Your task to perform on an android device: install app "Booking.com: Hotels and more" Image 0: 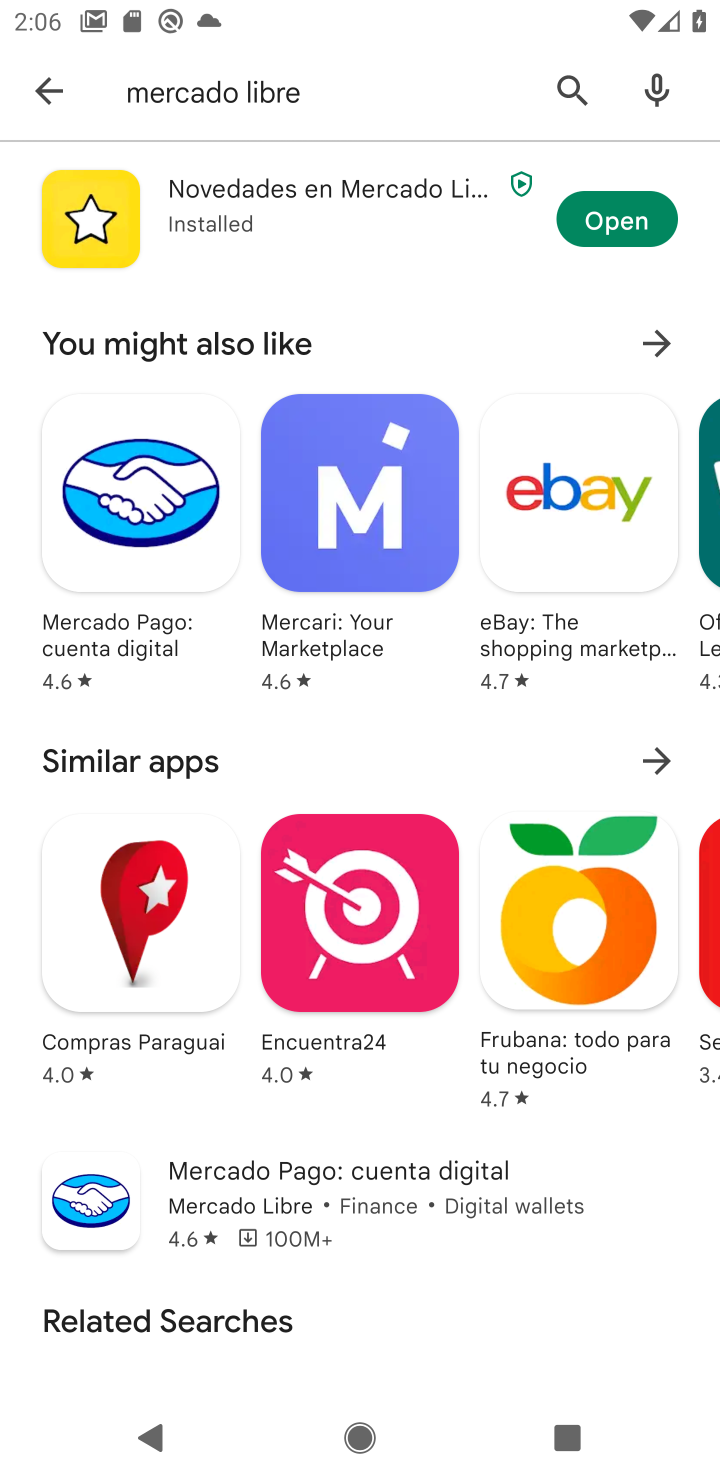
Step 0: click (554, 82)
Your task to perform on an android device: install app "Booking.com: Hotels and more" Image 1: 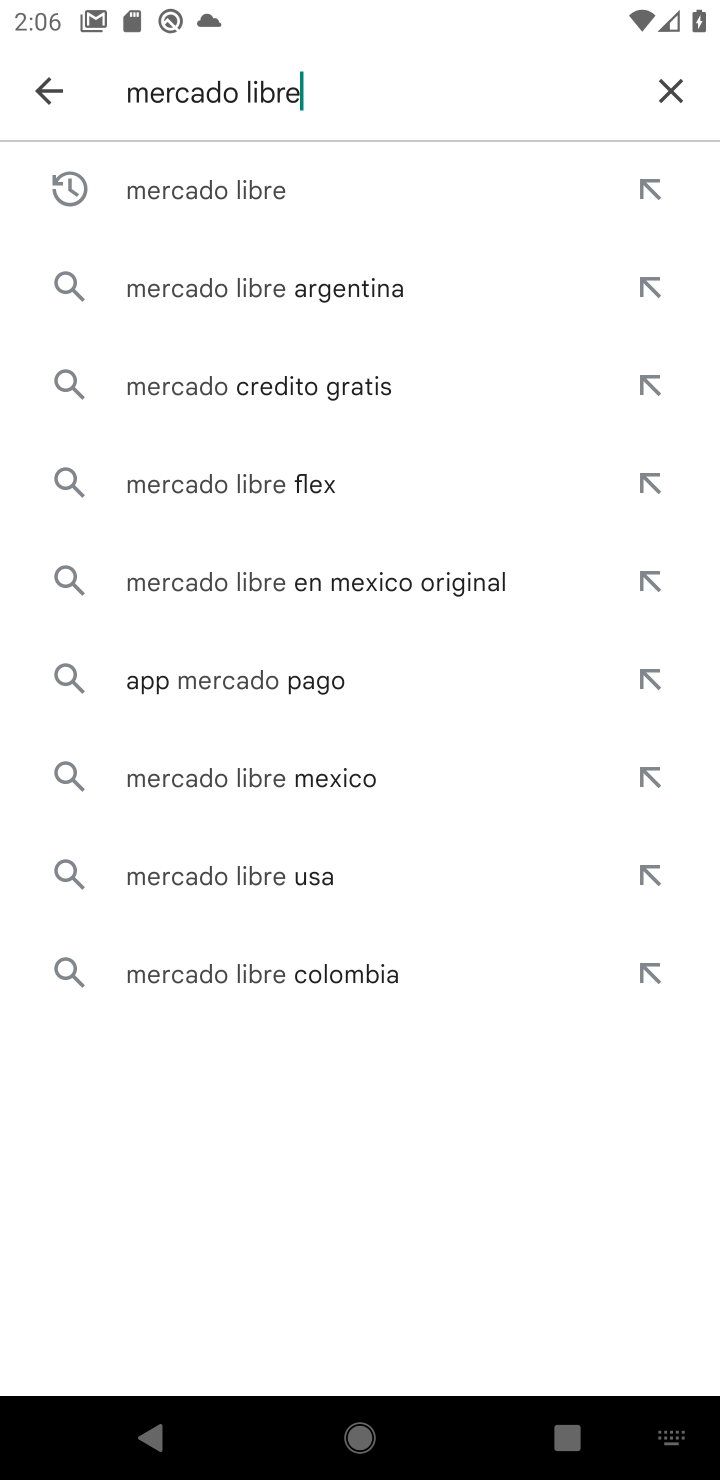
Step 1: click (678, 82)
Your task to perform on an android device: install app "Booking.com: Hotels and more" Image 2: 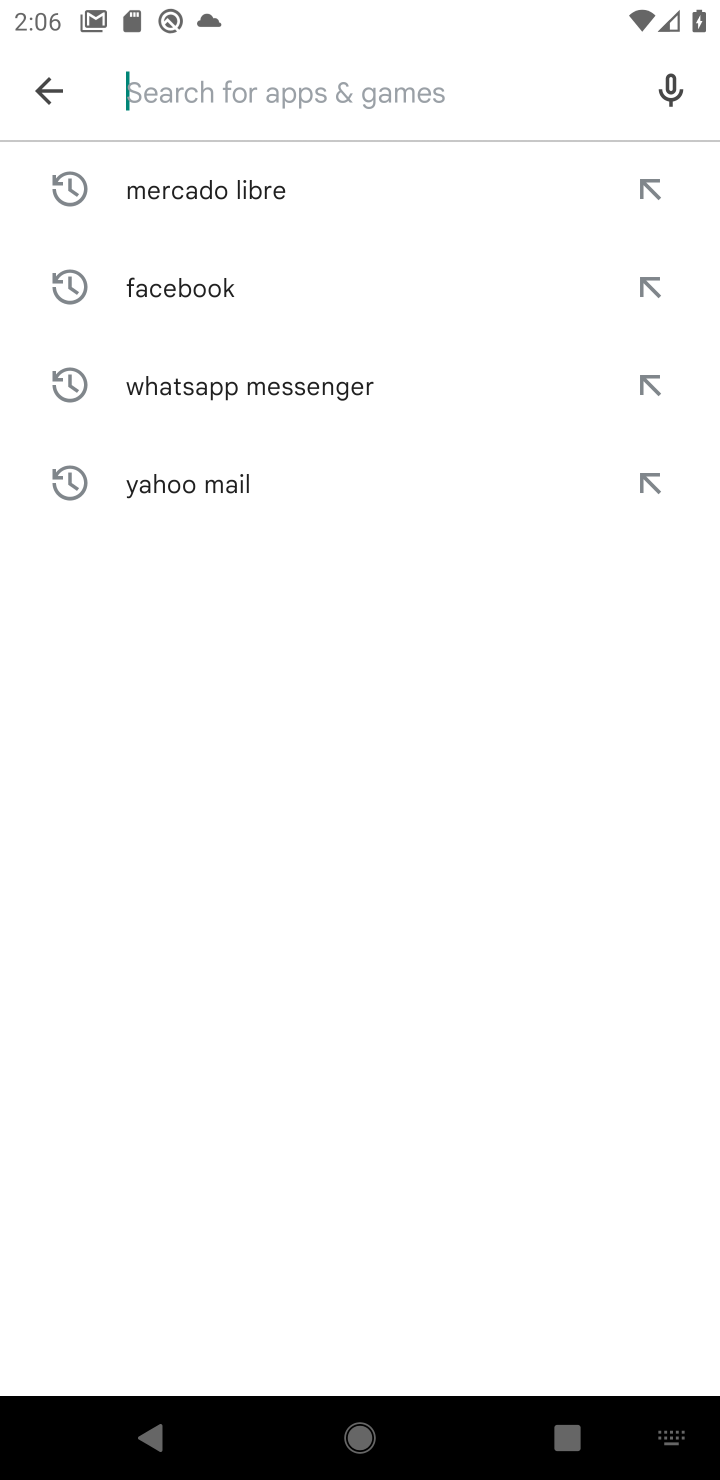
Step 2: type "Booking.com: Hotels and more"
Your task to perform on an android device: install app "Booking.com: Hotels and more" Image 3: 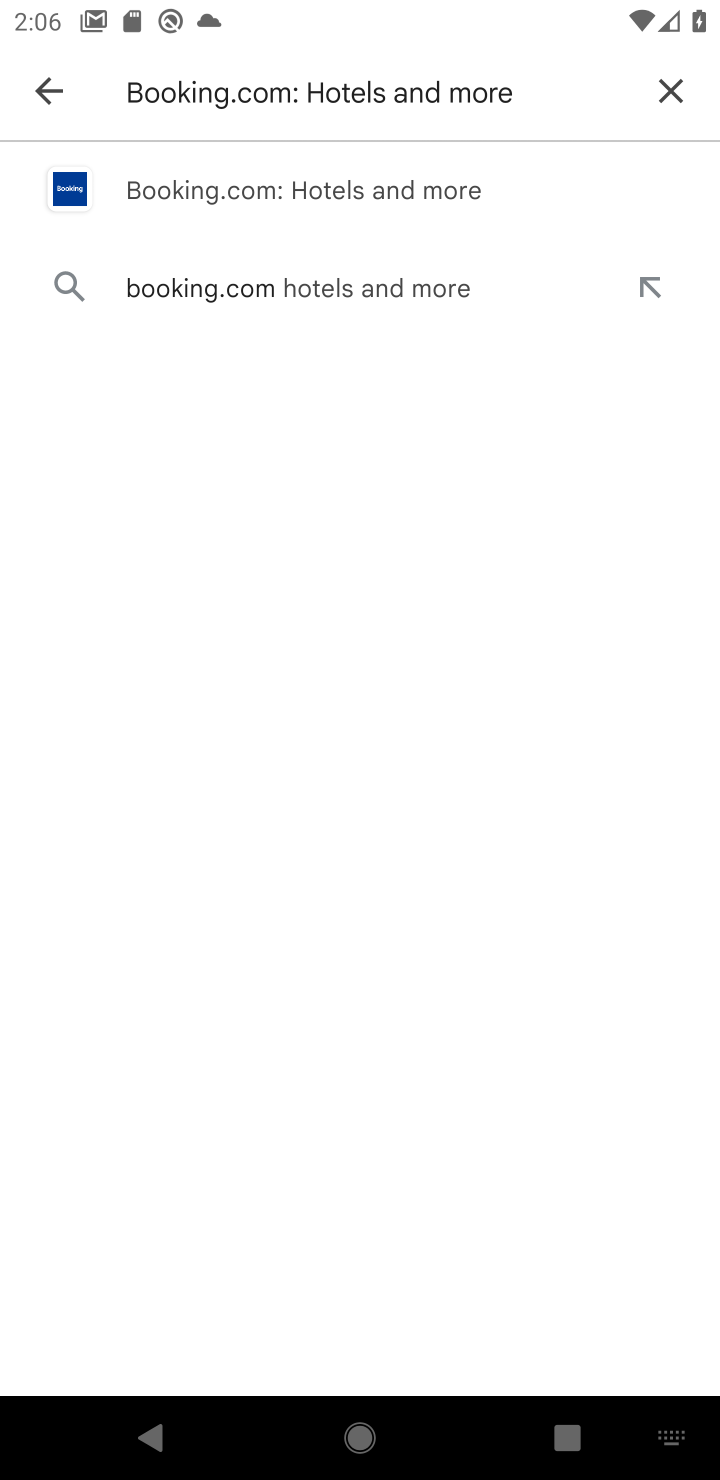
Step 3: click (239, 174)
Your task to perform on an android device: install app "Booking.com: Hotels and more" Image 4: 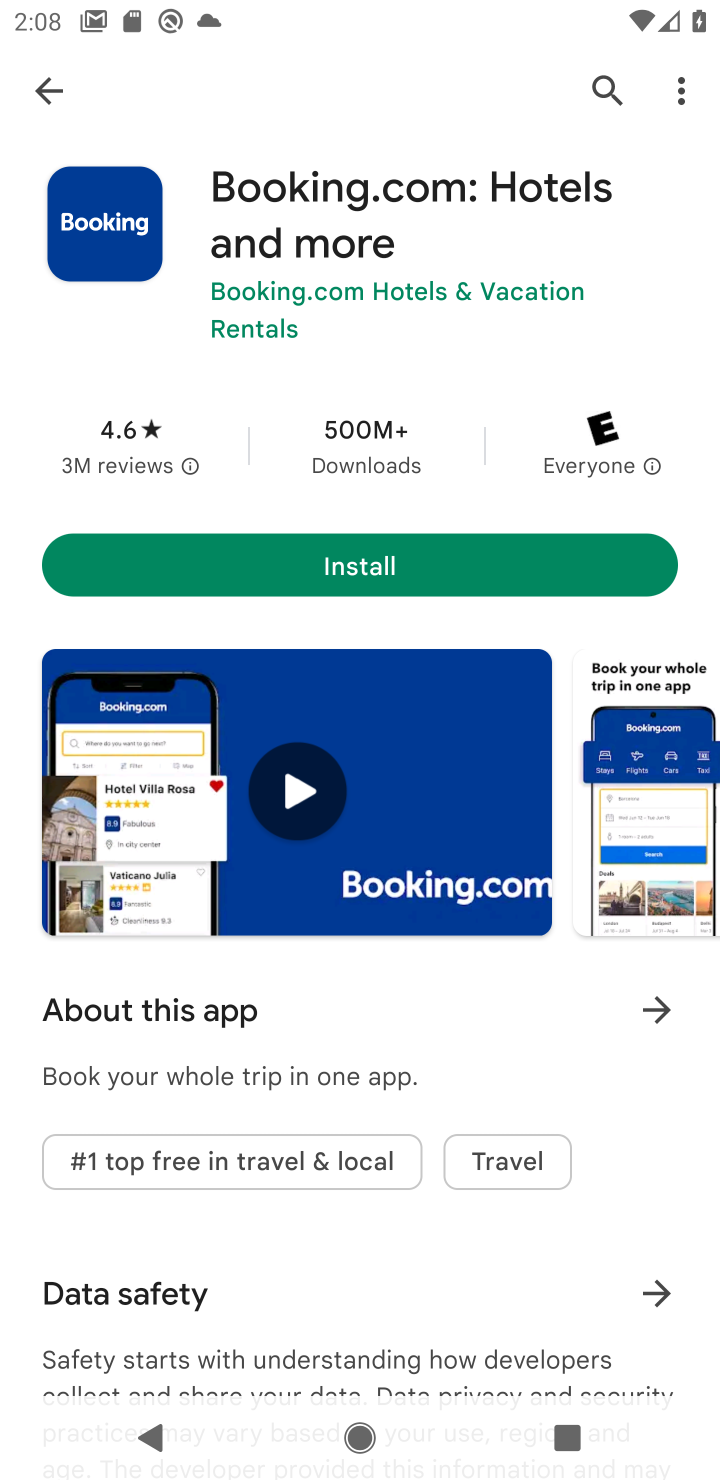
Step 4: click (365, 576)
Your task to perform on an android device: install app "Booking.com: Hotels and more" Image 5: 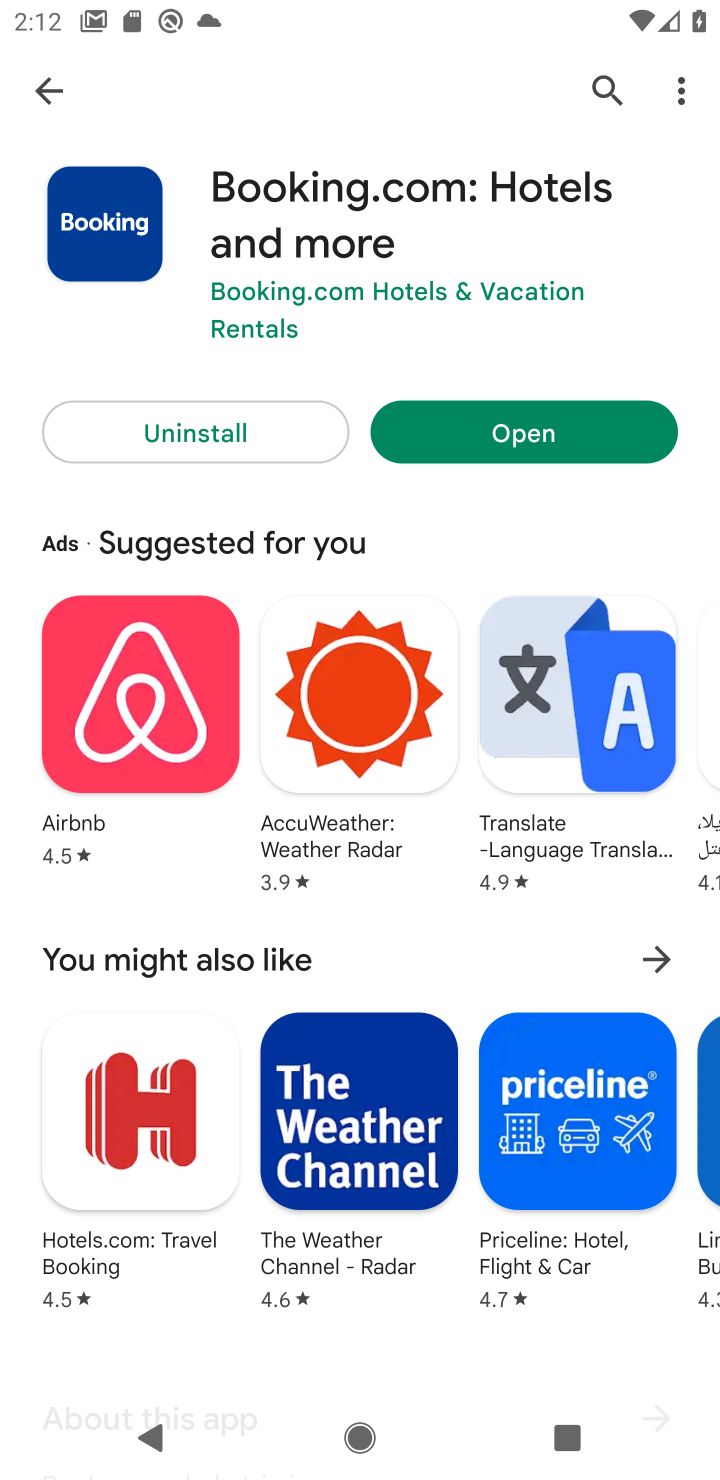
Step 5: click (571, 431)
Your task to perform on an android device: install app "Booking.com: Hotels and more" Image 6: 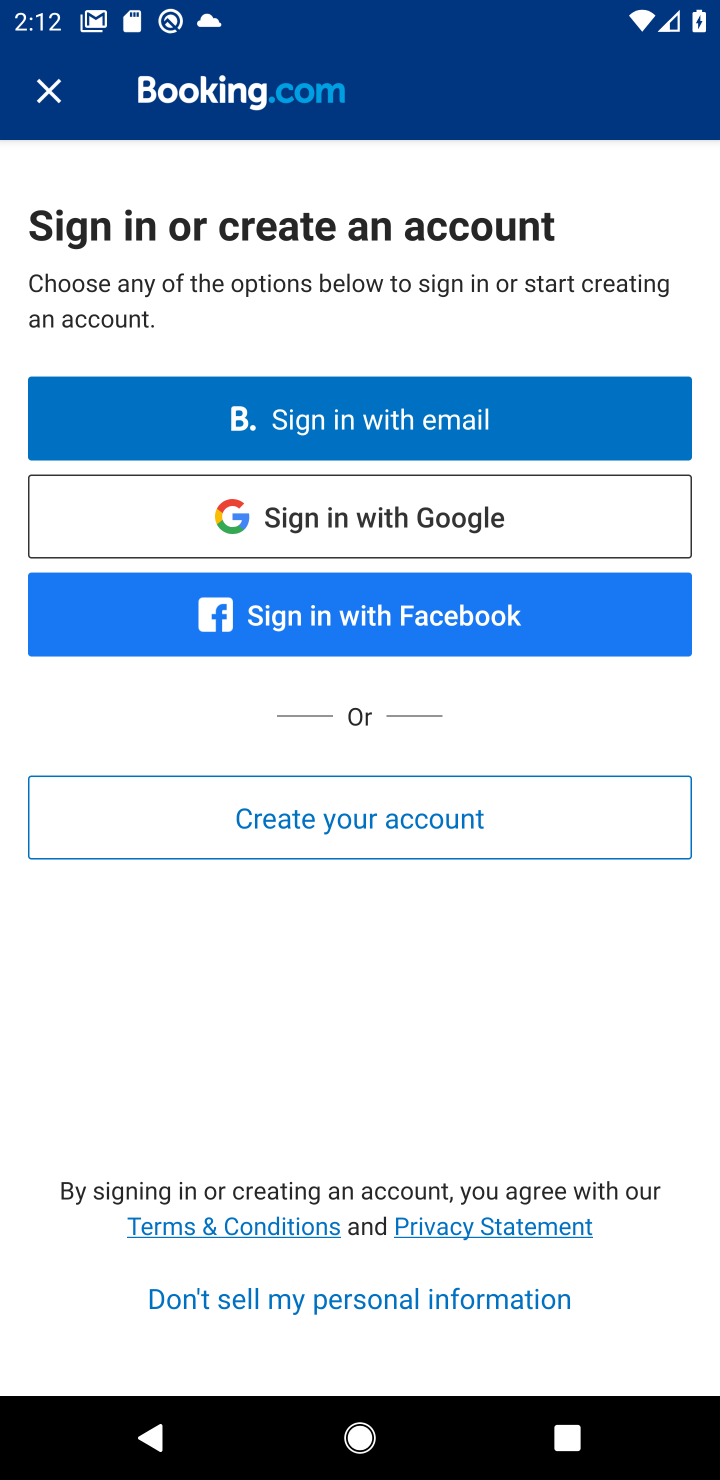
Step 6: click (394, 511)
Your task to perform on an android device: install app "Booking.com: Hotels and more" Image 7: 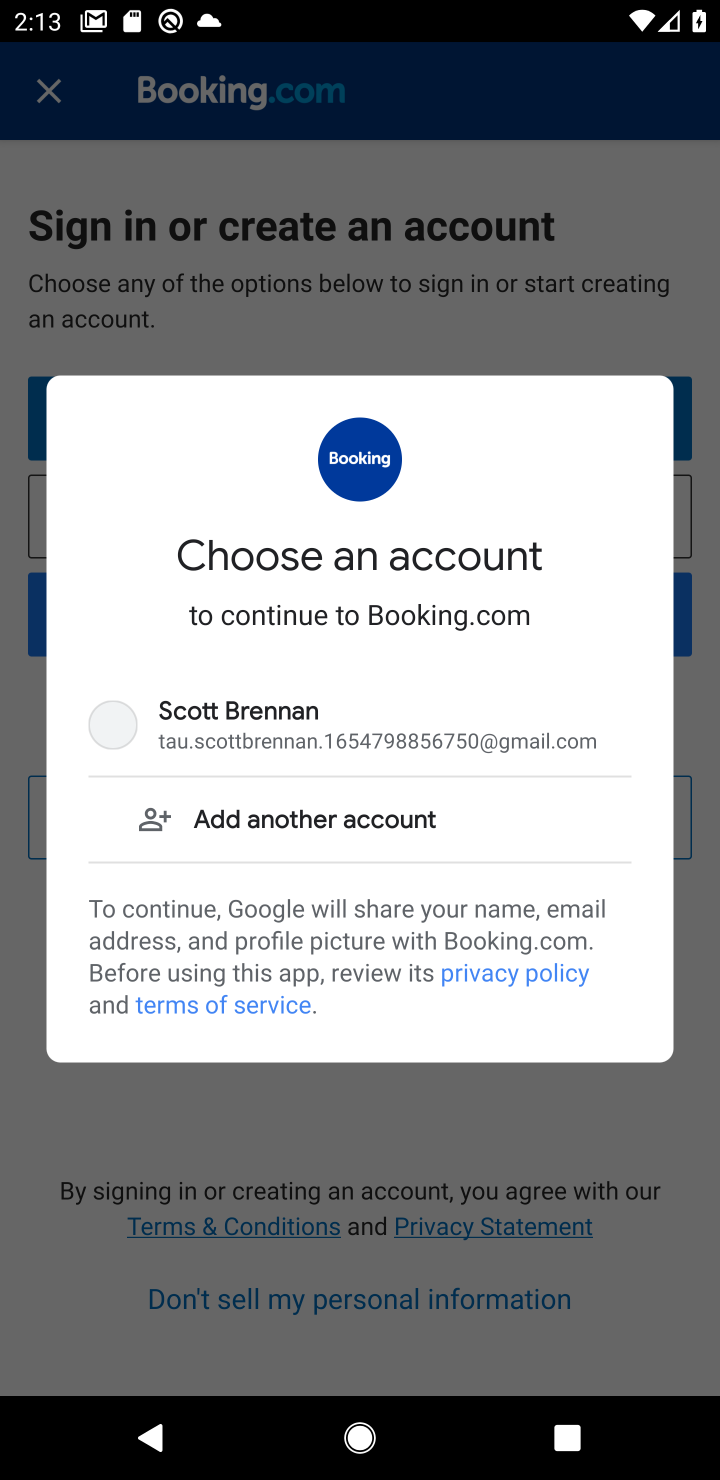
Step 7: click (304, 731)
Your task to perform on an android device: install app "Booking.com: Hotels and more" Image 8: 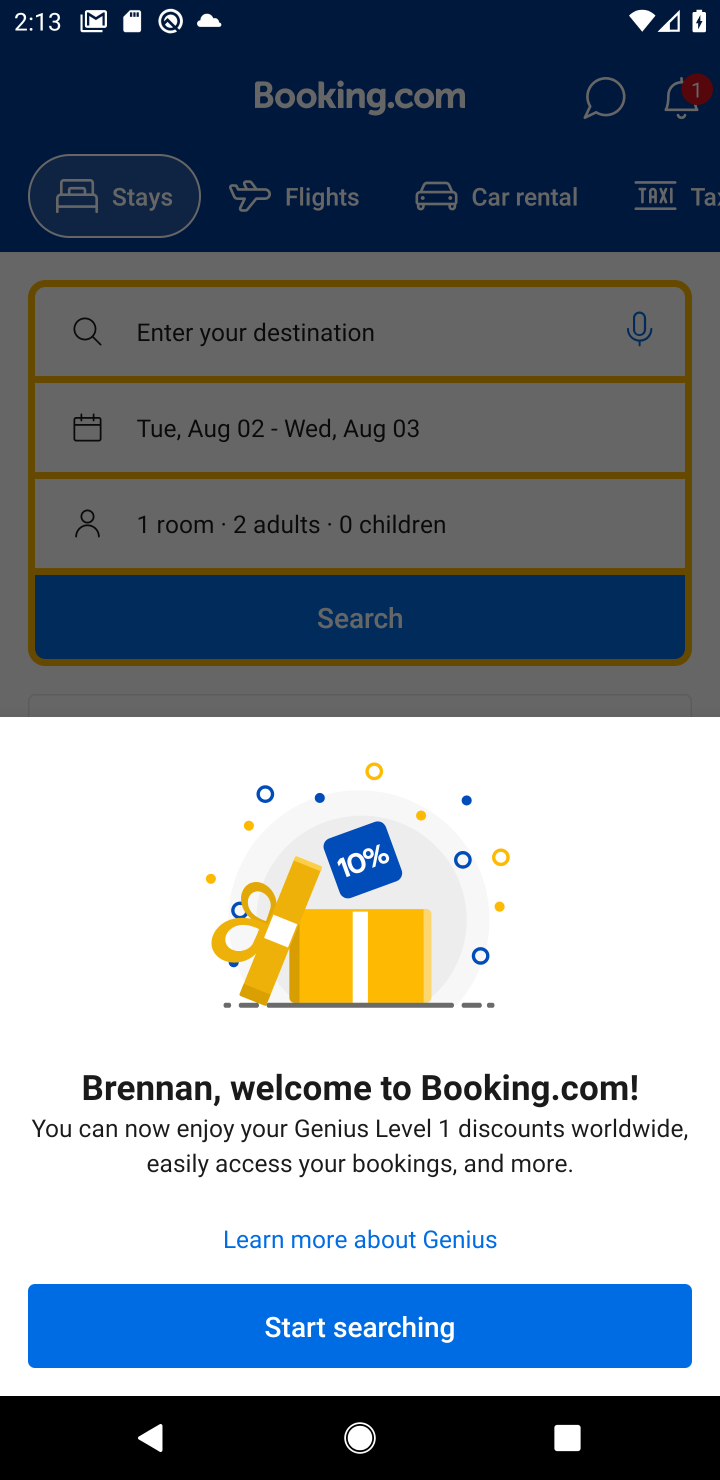
Step 8: click (341, 1339)
Your task to perform on an android device: install app "Booking.com: Hotels and more" Image 9: 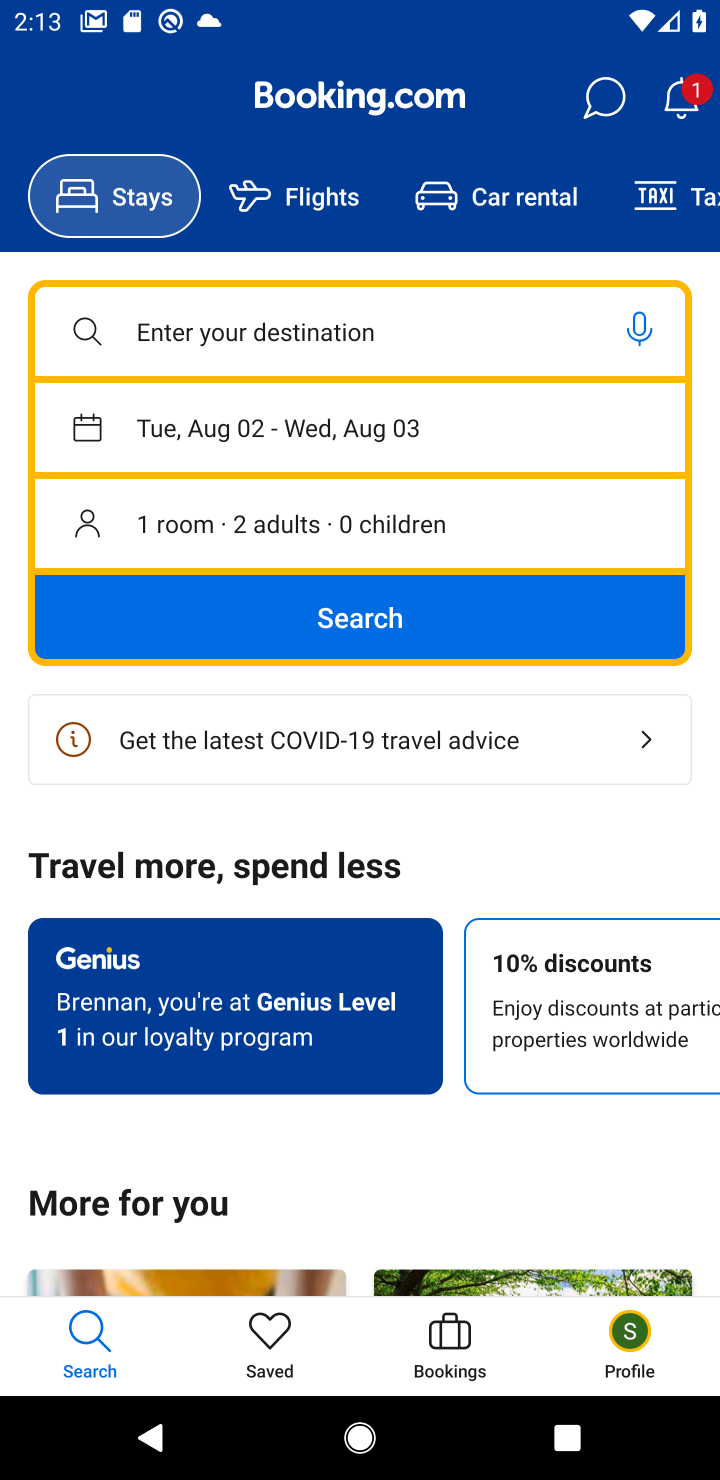
Step 9: task complete